Your task to perform on an android device: Search for Italian restaurants on Maps Image 0: 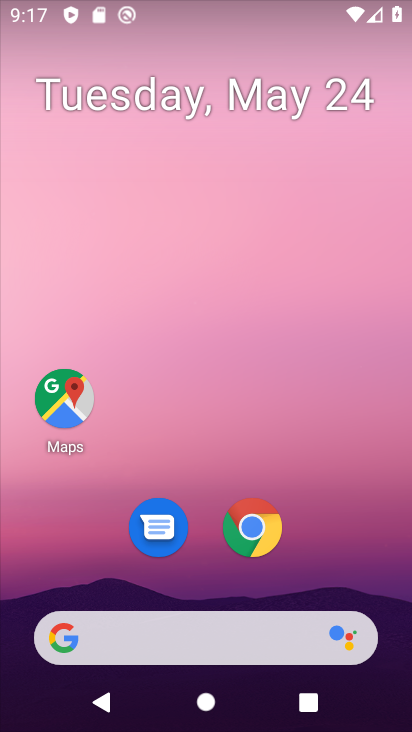
Step 0: click (71, 386)
Your task to perform on an android device: Search for Italian restaurants on Maps Image 1: 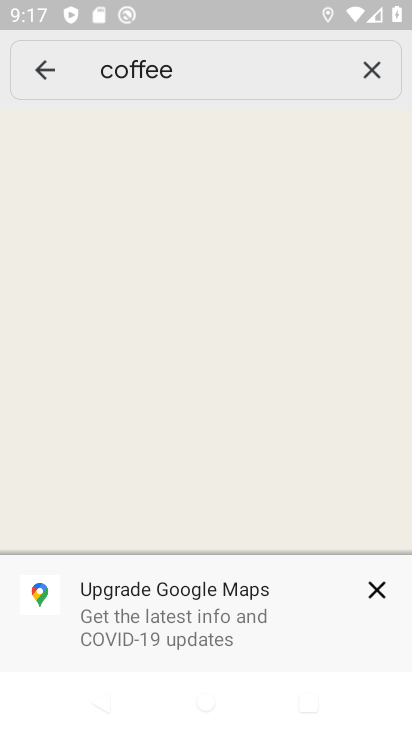
Step 1: press back button
Your task to perform on an android device: Search for Italian restaurants on Maps Image 2: 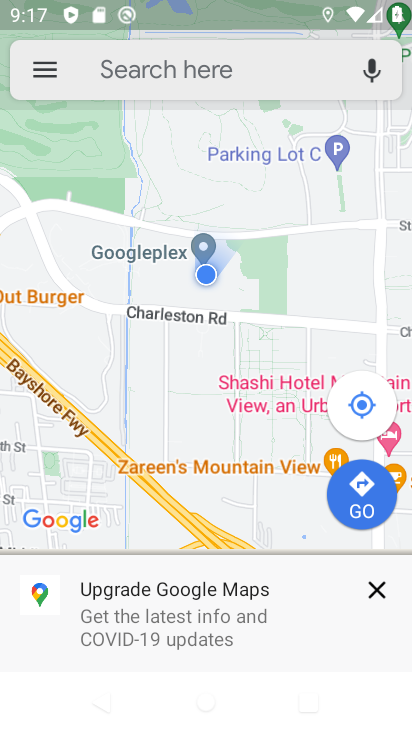
Step 2: click (114, 70)
Your task to perform on an android device: Search for Italian restaurants on Maps Image 3: 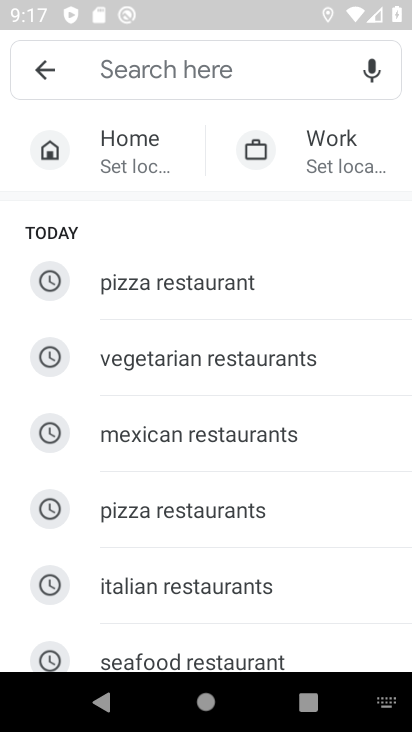
Step 3: type "Italian restaurants"
Your task to perform on an android device: Search for Italian restaurants on Maps Image 4: 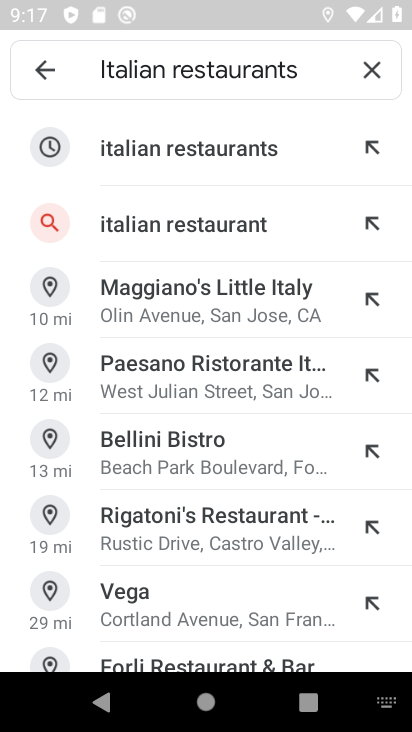
Step 4: click (249, 224)
Your task to perform on an android device: Search for Italian restaurants on Maps Image 5: 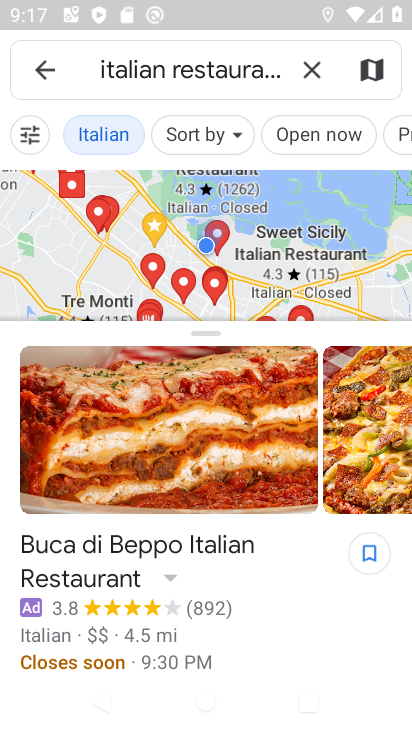
Step 5: task complete